Your task to perform on an android device: Open Reddit.com Image 0: 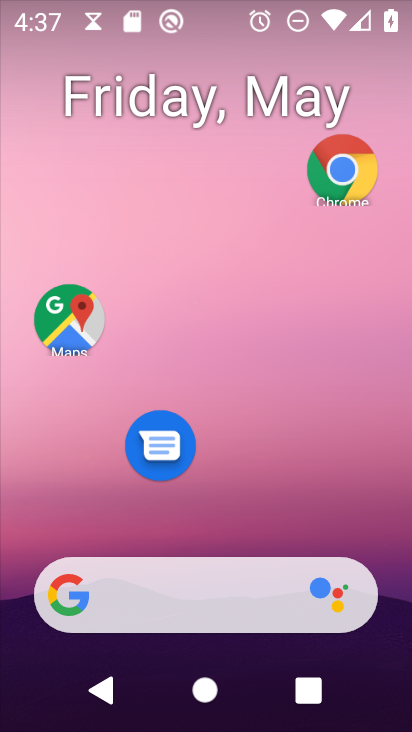
Step 0: click (361, 175)
Your task to perform on an android device: Open Reddit.com Image 1: 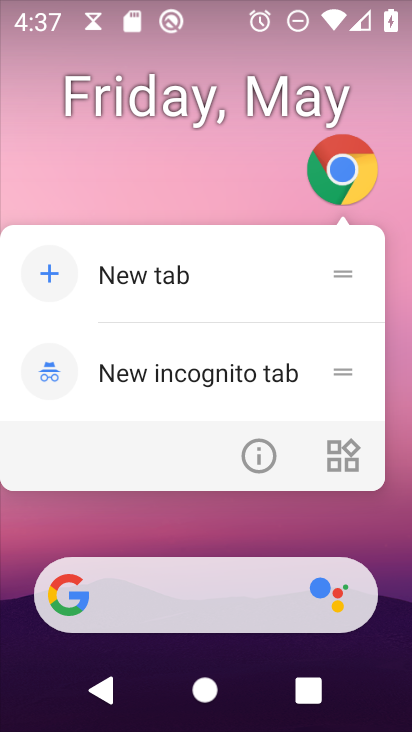
Step 1: click (343, 172)
Your task to perform on an android device: Open Reddit.com Image 2: 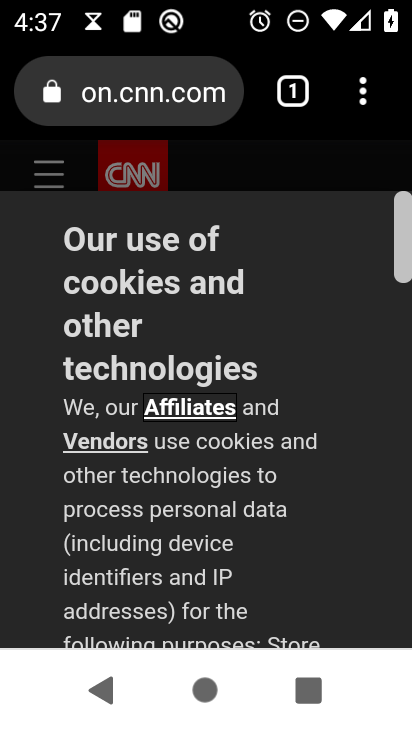
Step 2: click (184, 100)
Your task to perform on an android device: Open Reddit.com Image 3: 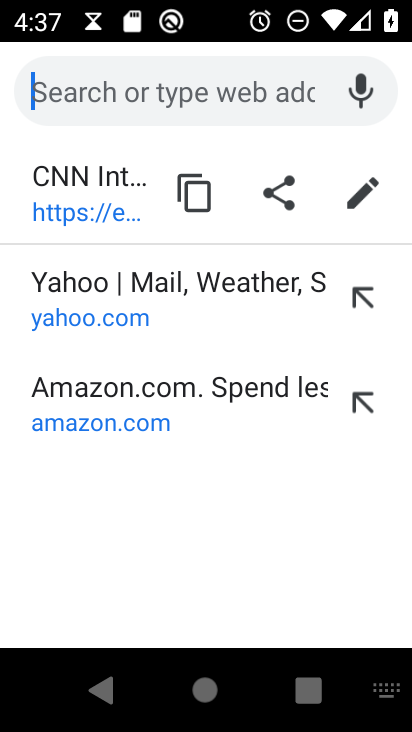
Step 3: type "www.reddit.com"
Your task to perform on an android device: Open Reddit.com Image 4: 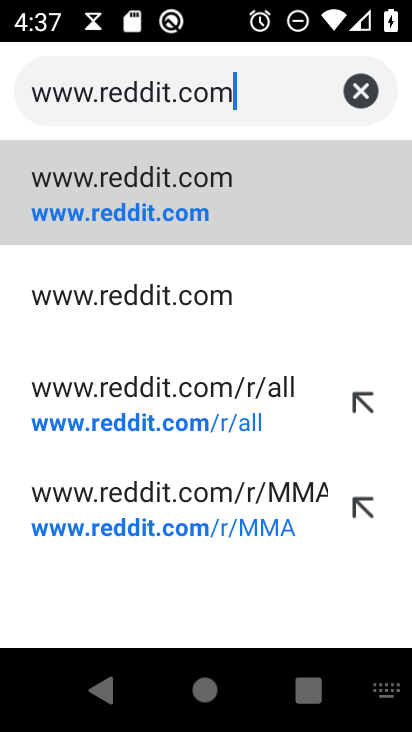
Step 4: click (102, 201)
Your task to perform on an android device: Open Reddit.com Image 5: 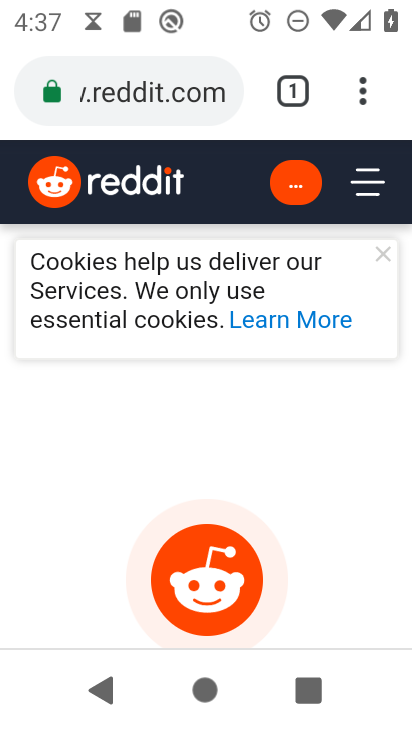
Step 5: task complete